Your task to perform on an android device: turn off translation in the chrome app Image 0: 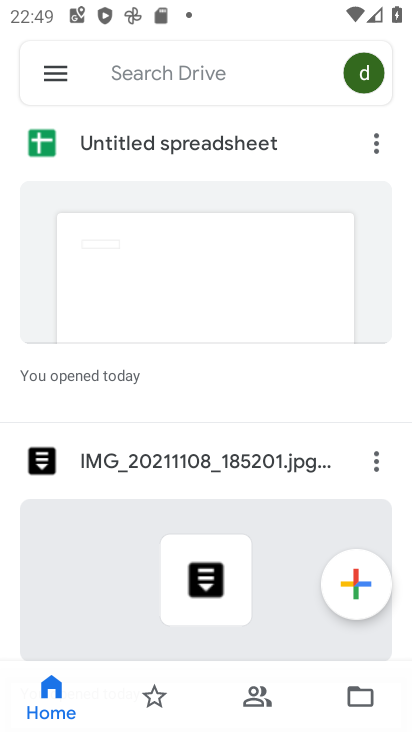
Step 0: drag from (204, 604) to (242, 1)
Your task to perform on an android device: turn off translation in the chrome app Image 1: 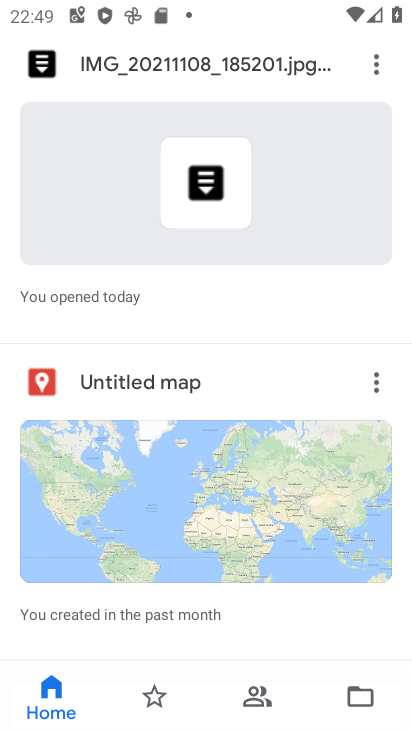
Step 1: drag from (292, 466) to (329, 234)
Your task to perform on an android device: turn off translation in the chrome app Image 2: 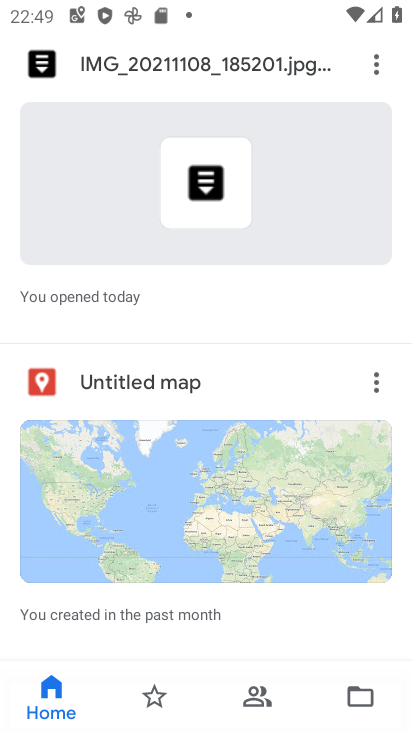
Step 2: press home button
Your task to perform on an android device: turn off translation in the chrome app Image 3: 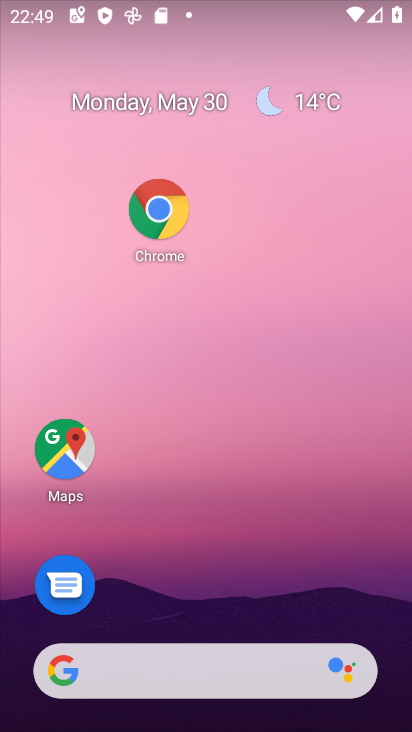
Step 3: drag from (217, 611) to (260, 120)
Your task to perform on an android device: turn off translation in the chrome app Image 4: 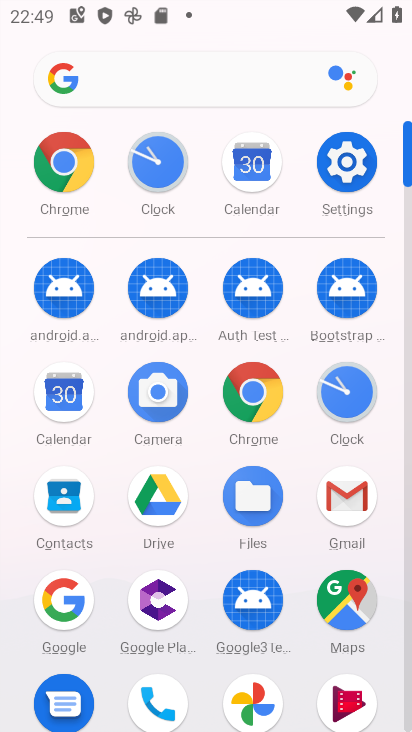
Step 4: click (247, 399)
Your task to perform on an android device: turn off translation in the chrome app Image 5: 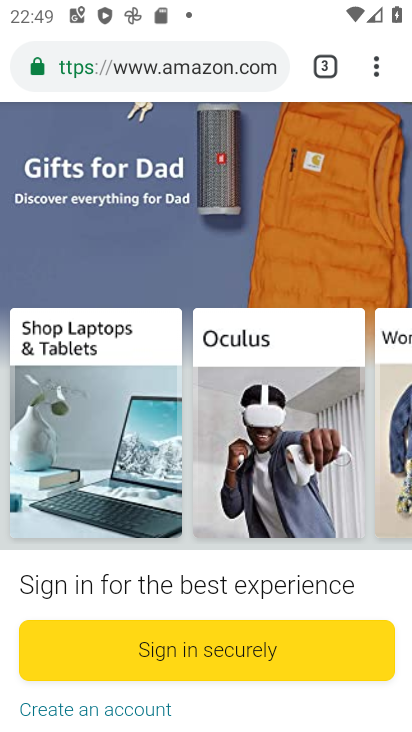
Step 5: drag from (381, 55) to (181, 587)
Your task to perform on an android device: turn off translation in the chrome app Image 6: 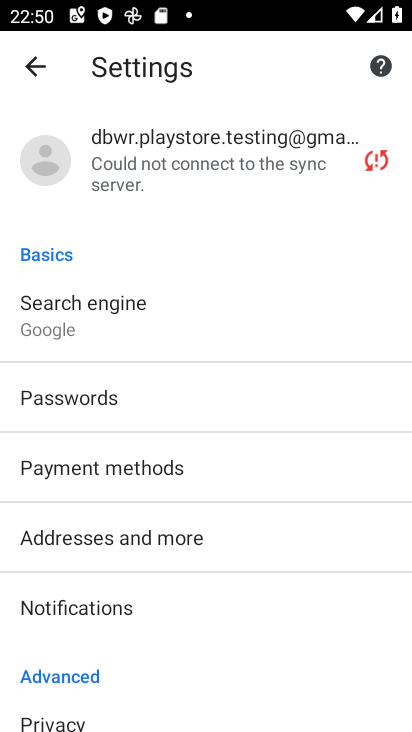
Step 6: drag from (161, 618) to (254, 50)
Your task to perform on an android device: turn off translation in the chrome app Image 7: 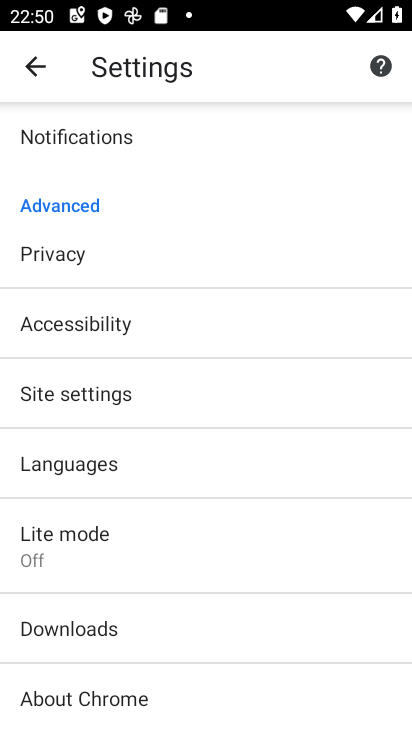
Step 7: click (85, 470)
Your task to perform on an android device: turn off translation in the chrome app Image 8: 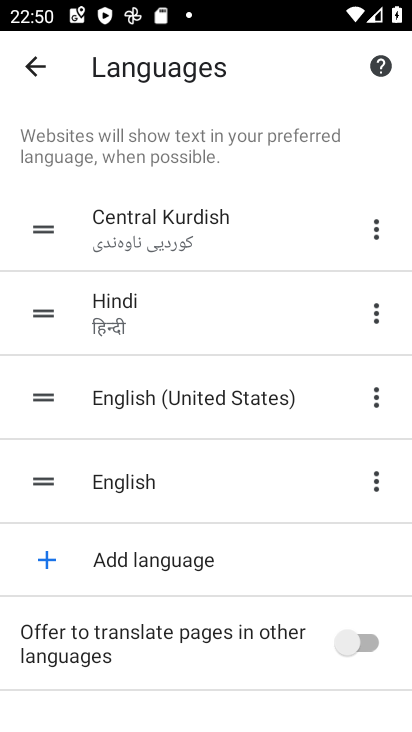
Step 8: task complete